Your task to perform on an android device: change keyboard looks Image 0: 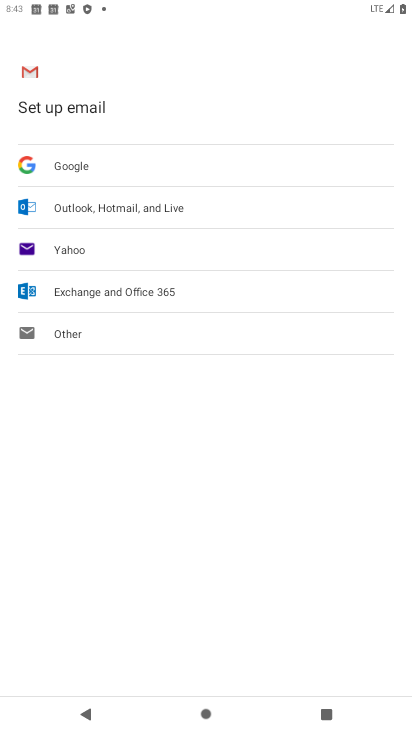
Step 0: press back button
Your task to perform on an android device: change keyboard looks Image 1: 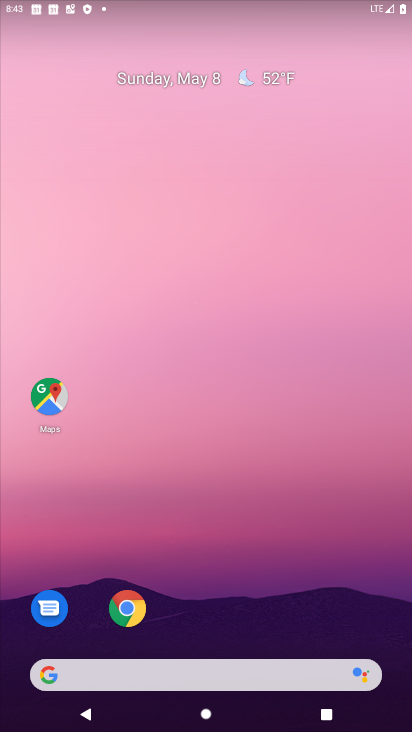
Step 1: drag from (263, 596) to (255, 19)
Your task to perform on an android device: change keyboard looks Image 2: 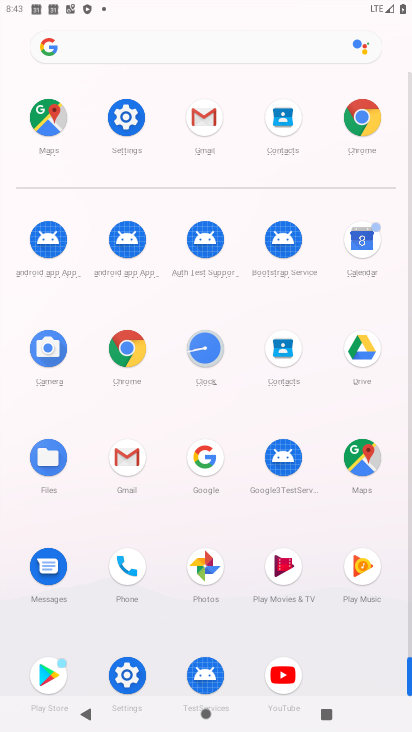
Step 2: click (123, 672)
Your task to perform on an android device: change keyboard looks Image 3: 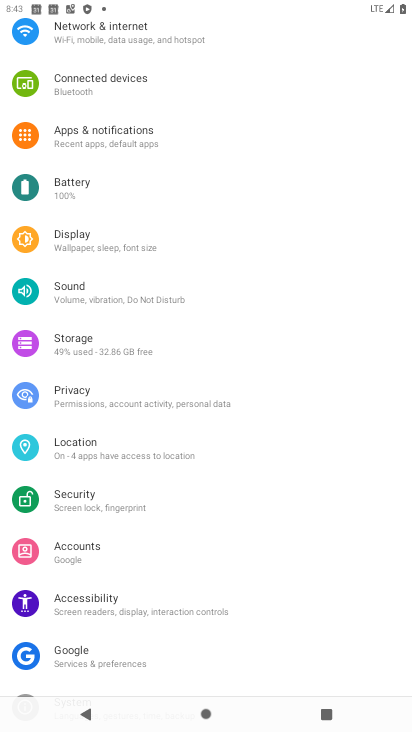
Step 3: drag from (220, 581) to (214, 62)
Your task to perform on an android device: change keyboard looks Image 4: 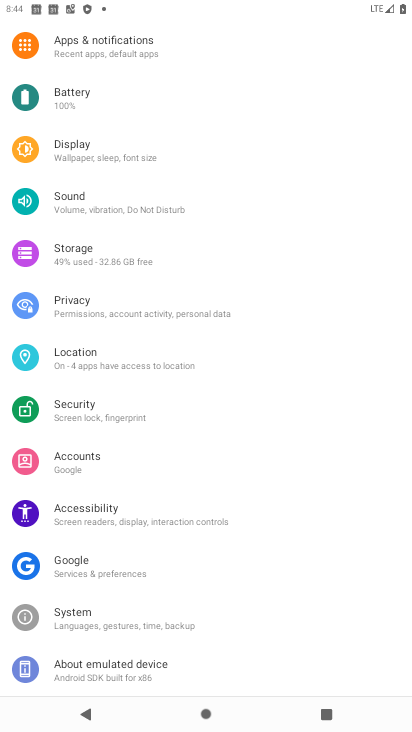
Step 4: click (112, 613)
Your task to perform on an android device: change keyboard looks Image 5: 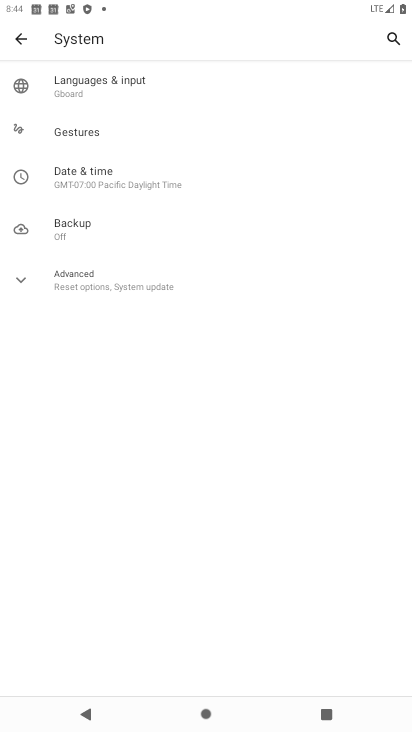
Step 5: click (140, 83)
Your task to perform on an android device: change keyboard looks Image 6: 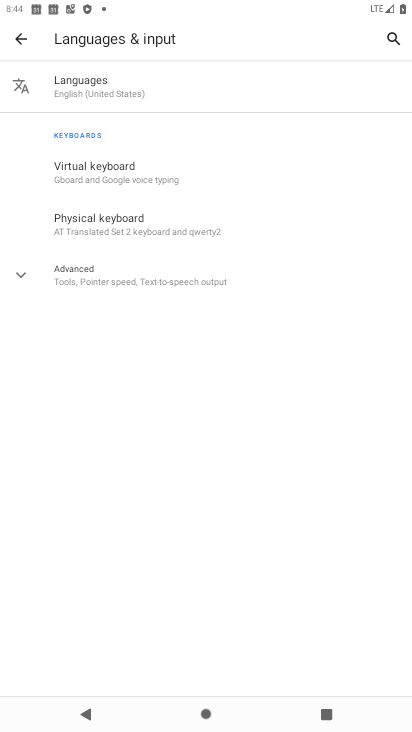
Step 6: click (139, 172)
Your task to perform on an android device: change keyboard looks Image 7: 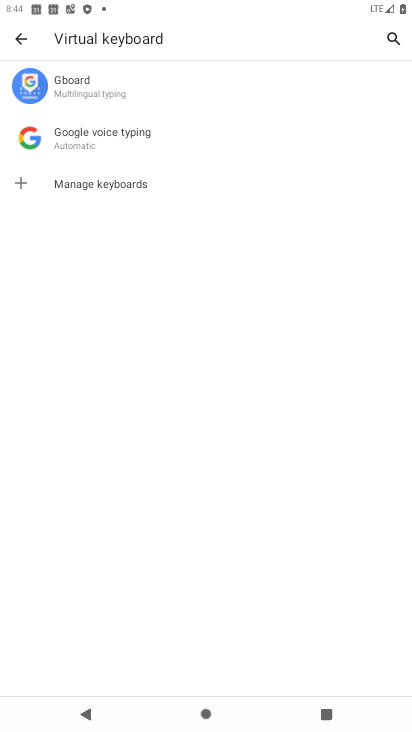
Step 7: click (140, 85)
Your task to perform on an android device: change keyboard looks Image 8: 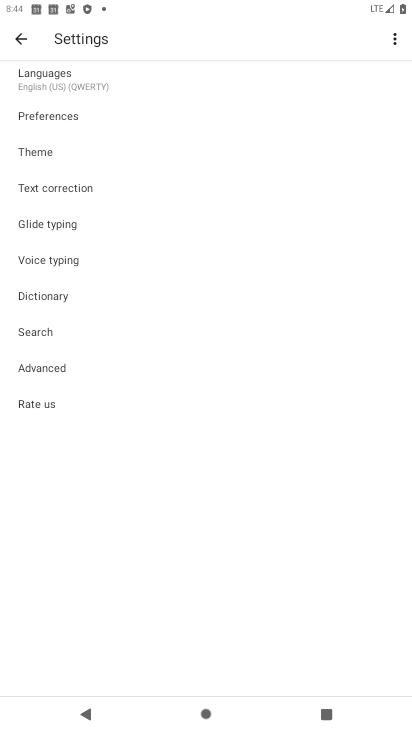
Step 8: click (53, 148)
Your task to perform on an android device: change keyboard looks Image 9: 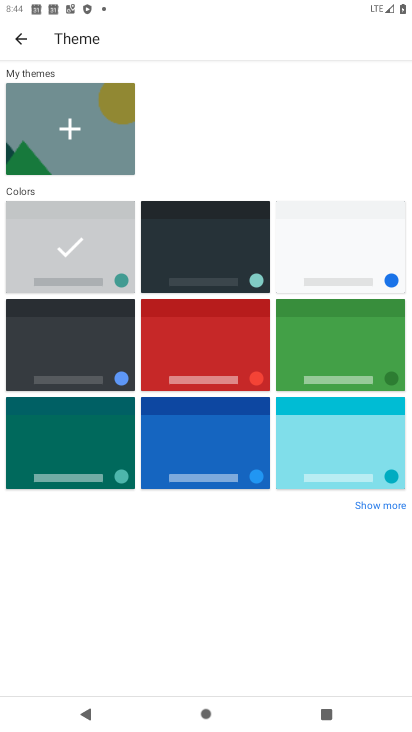
Step 9: click (203, 255)
Your task to perform on an android device: change keyboard looks Image 10: 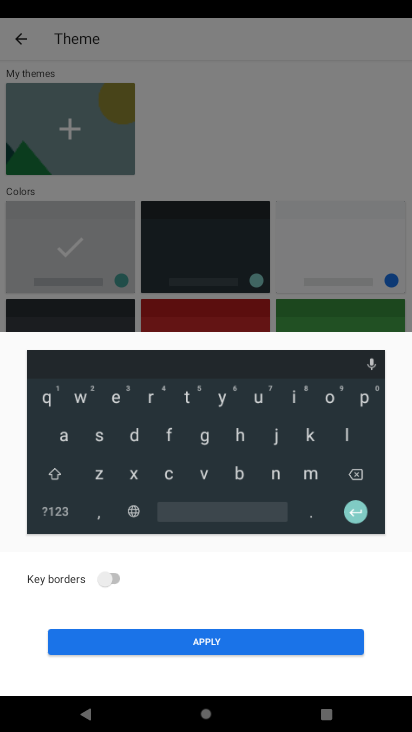
Step 10: click (250, 644)
Your task to perform on an android device: change keyboard looks Image 11: 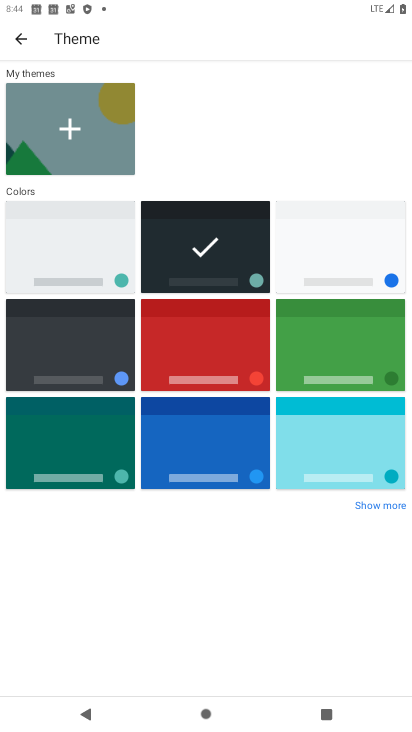
Step 11: task complete